Your task to perform on an android device: How much does a 3 bedroom apartment rent for in Seattle? Image 0: 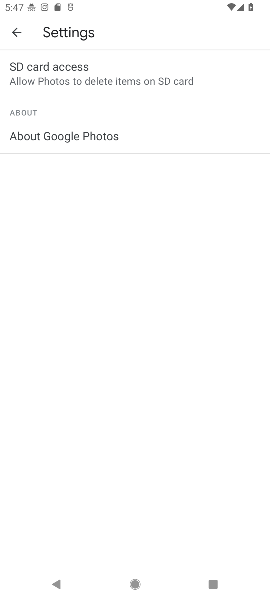
Step 0: press home button
Your task to perform on an android device: How much does a 3 bedroom apartment rent for in Seattle? Image 1: 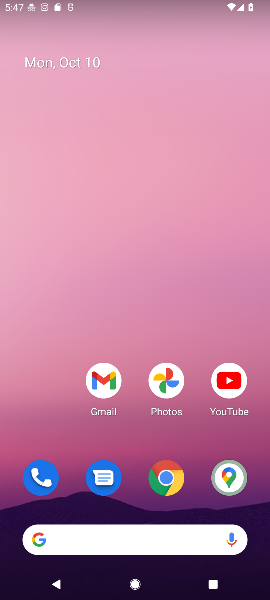
Step 1: click (150, 487)
Your task to perform on an android device: How much does a 3 bedroom apartment rent for in Seattle? Image 2: 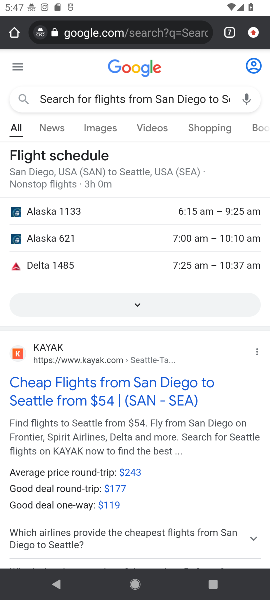
Step 2: click (126, 43)
Your task to perform on an android device: How much does a 3 bedroom apartment rent for in Seattle? Image 3: 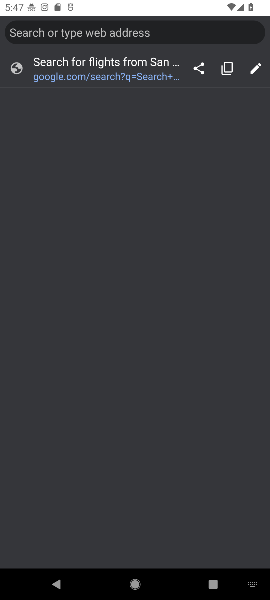
Step 3: type "How much does a 3 bedroom apartment rent for in Seattle?"
Your task to perform on an android device: How much does a 3 bedroom apartment rent for in Seattle? Image 4: 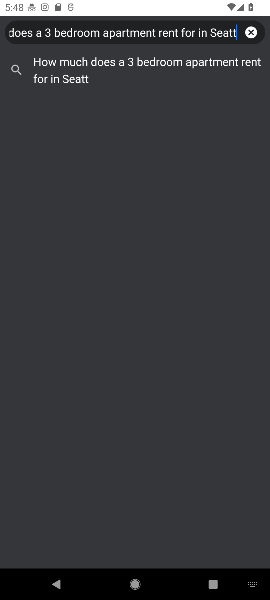
Step 4: click (149, 80)
Your task to perform on an android device: How much does a 3 bedroom apartment rent for in Seattle? Image 5: 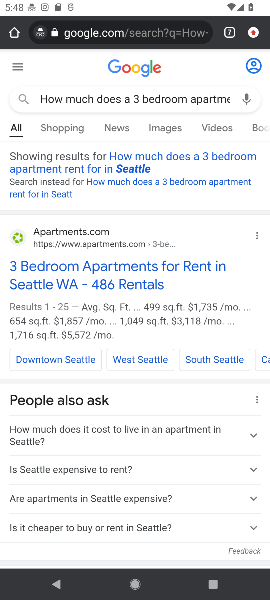
Step 5: click (28, 268)
Your task to perform on an android device: How much does a 3 bedroom apartment rent for in Seattle? Image 6: 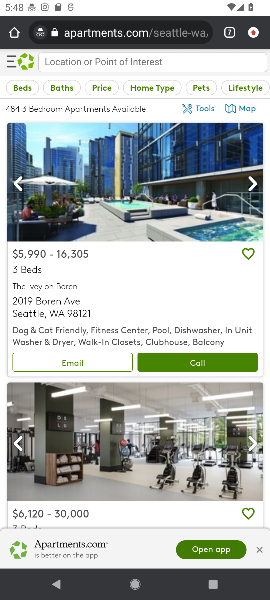
Step 6: task complete